Your task to perform on an android device: Go to Reddit.com Image 0: 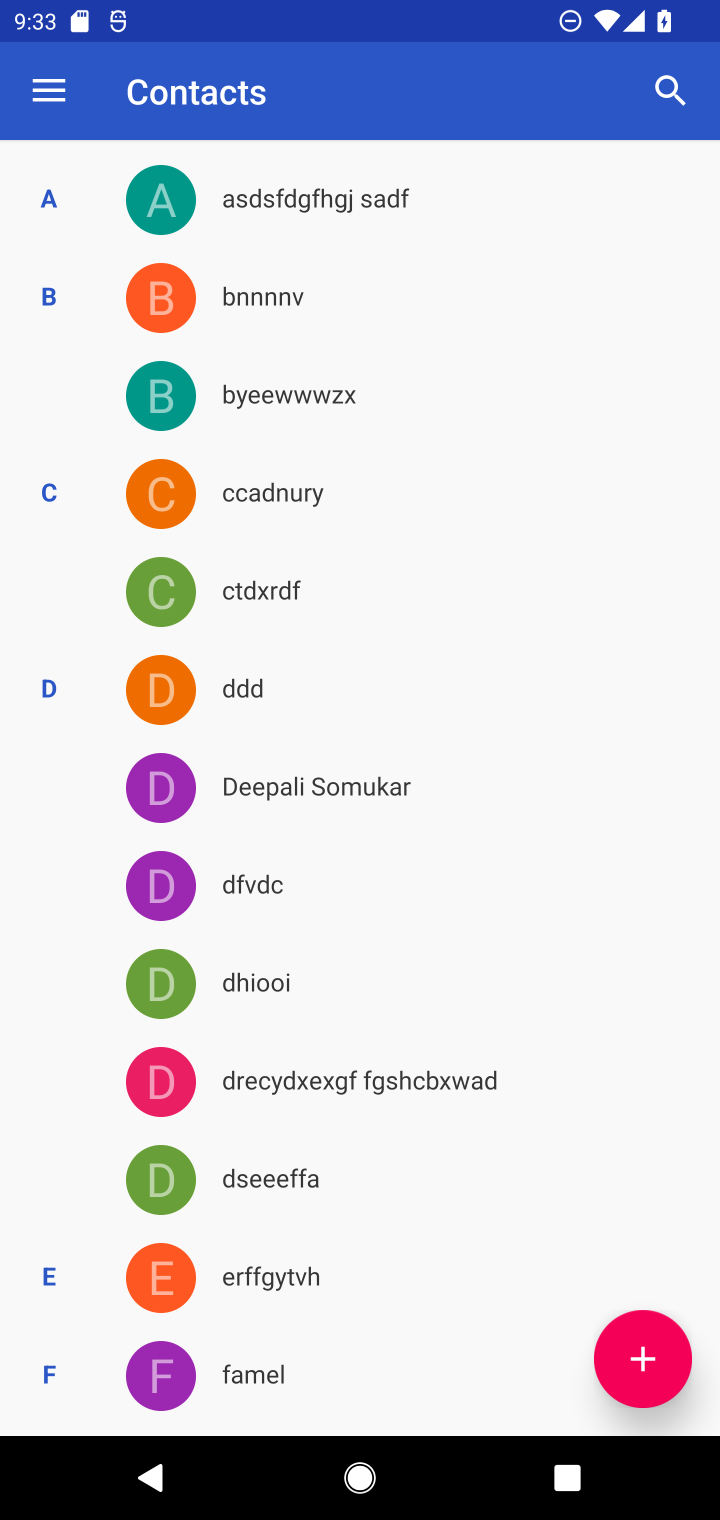
Step 0: press home button
Your task to perform on an android device: Go to Reddit.com Image 1: 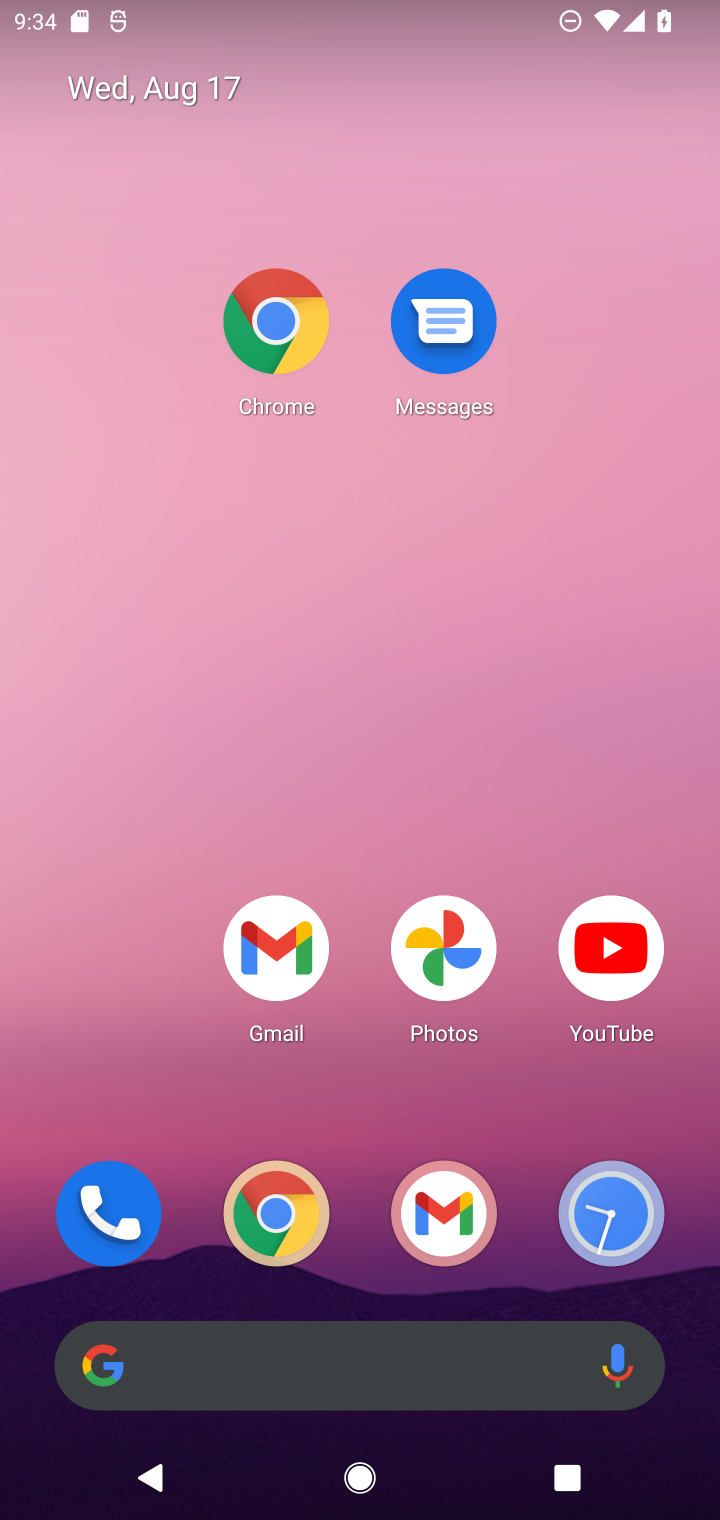
Step 1: click (405, 1390)
Your task to perform on an android device: Go to Reddit.com Image 2: 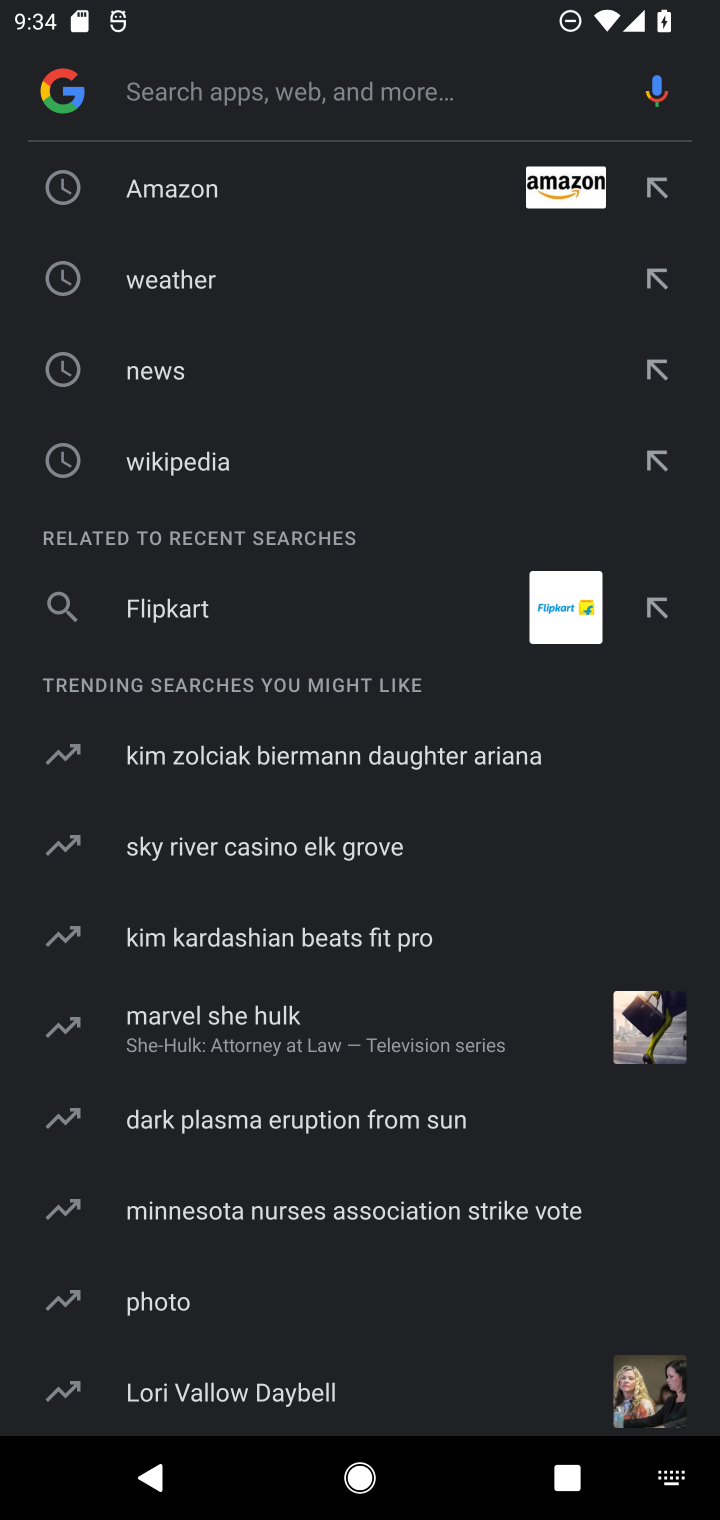
Step 2: type "reddit.com"
Your task to perform on an android device: Go to Reddit.com Image 3: 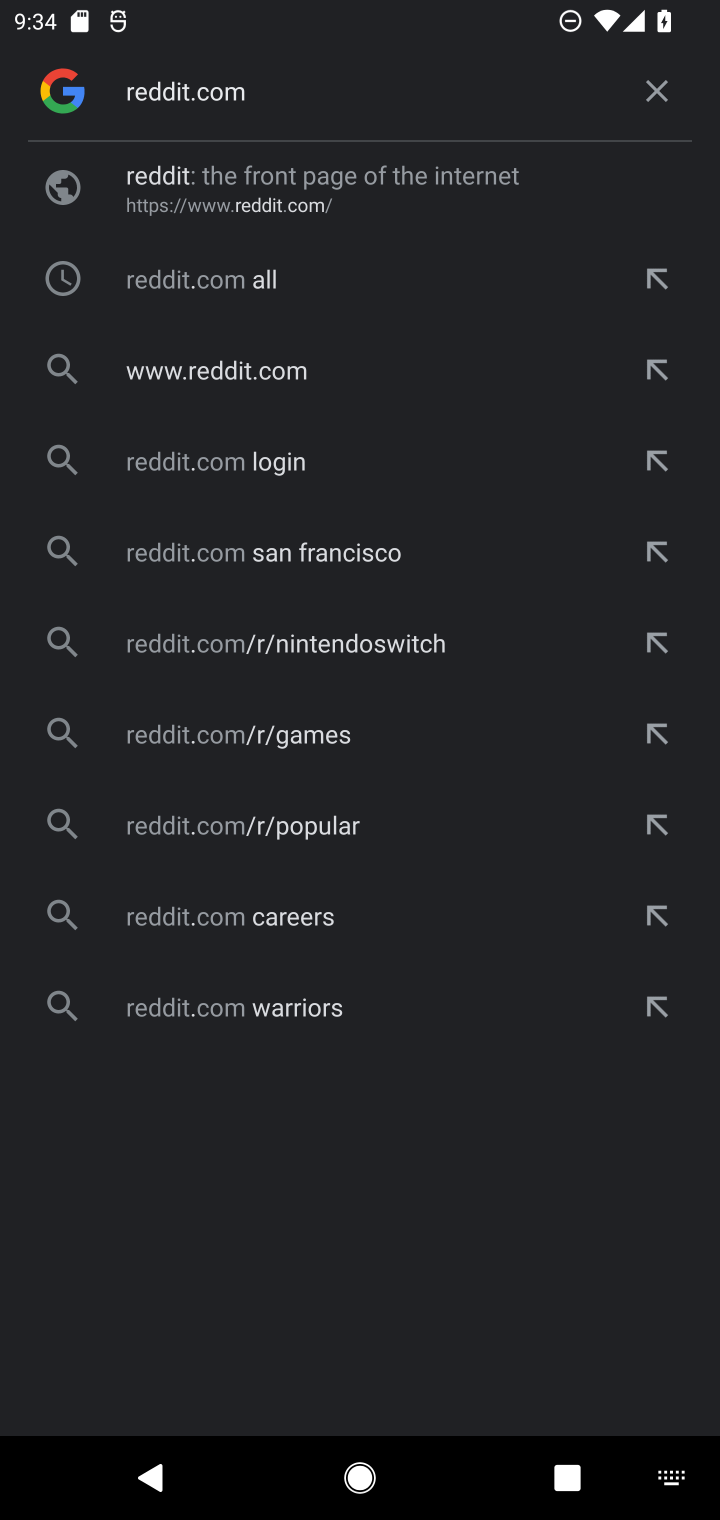
Step 3: click (132, 172)
Your task to perform on an android device: Go to Reddit.com Image 4: 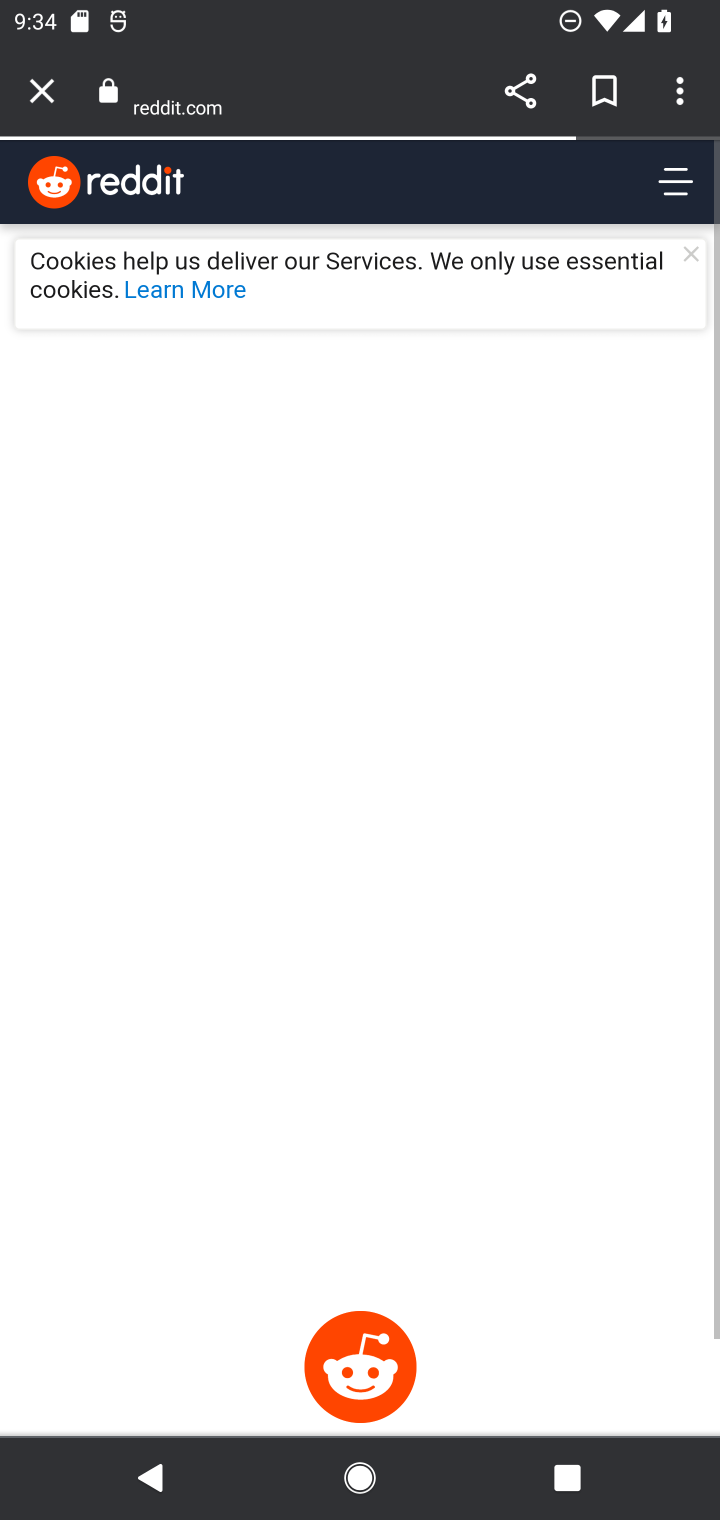
Step 4: task complete